Your task to perform on an android device: Search for Mexican restaurants on Maps Image 0: 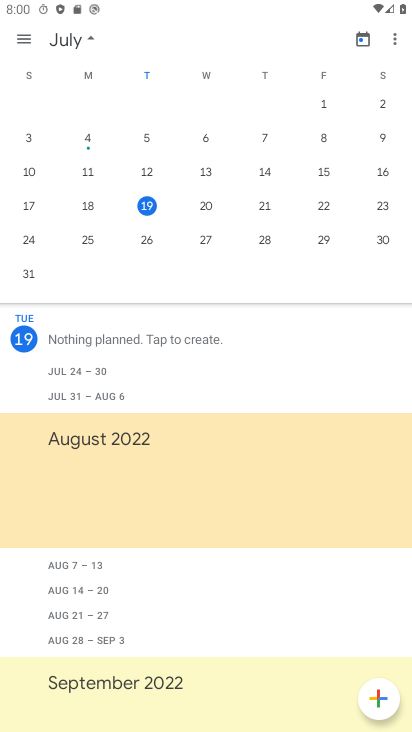
Step 0: press home button
Your task to perform on an android device: Search for Mexican restaurants on Maps Image 1: 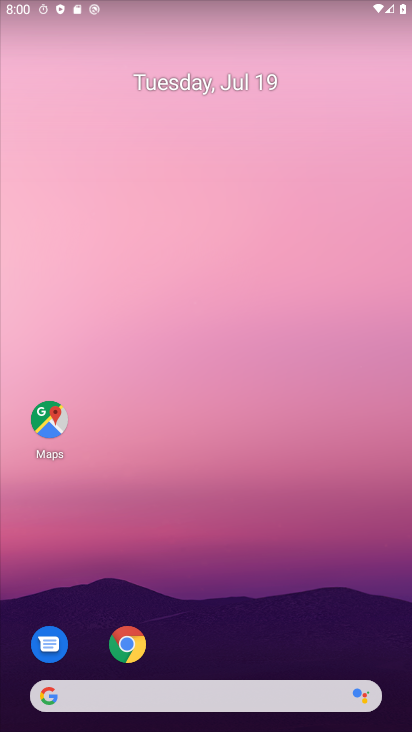
Step 1: click (54, 421)
Your task to perform on an android device: Search for Mexican restaurants on Maps Image 2: 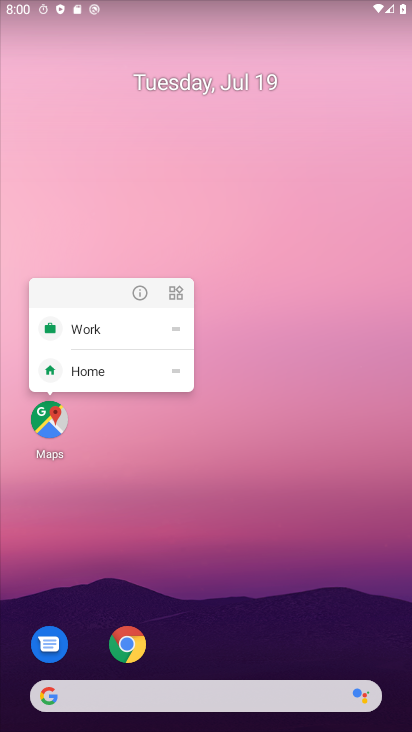
Step 2: click (39, 431)
Your task to perform on an android device: Search for Mexican restaurants on Maps Image 3: 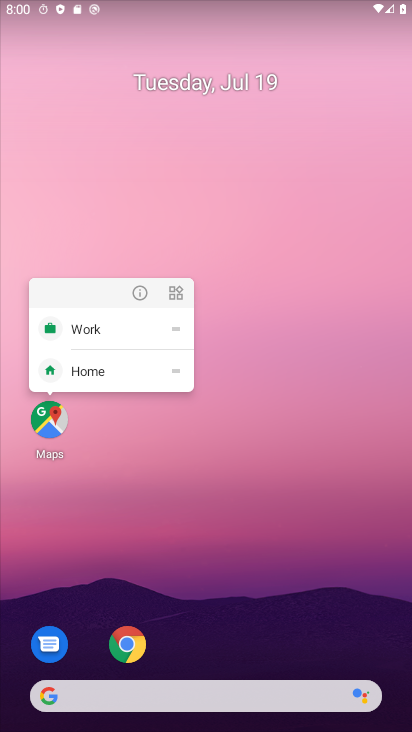
Step 3: click (42, 428)
Your task to perform on an android device: Search for Mexican restaurants on Maps Image 4: 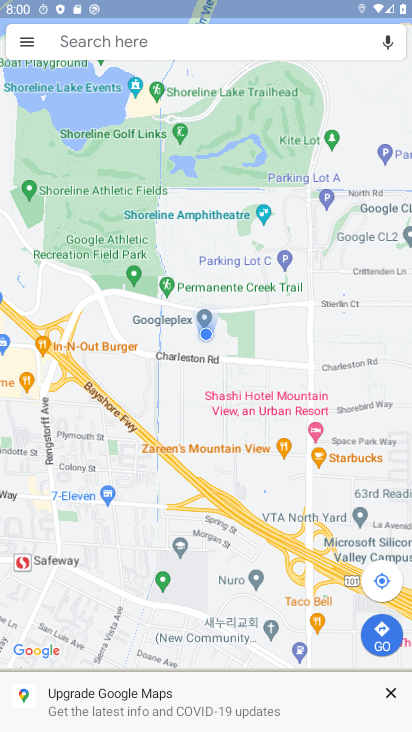
Step 4: click (63, 35)
Your task to perform on an android device: Search for Mexican restaurants on Maps Image 5: 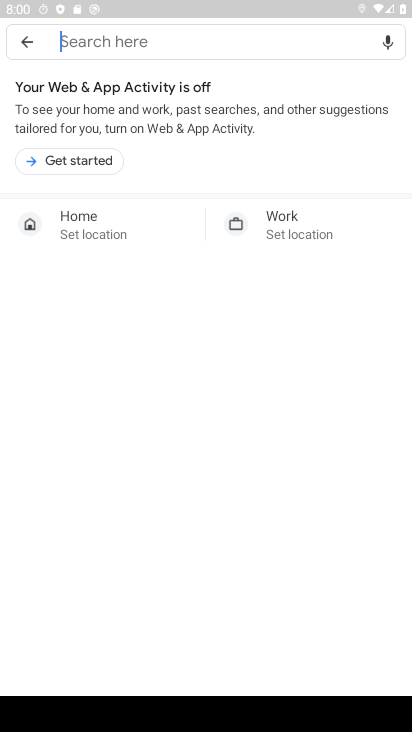
Step 5: type "Mexican restaurants"
Your task to perform on an android device: Search for Mexican restaurants on Maps Image 6: 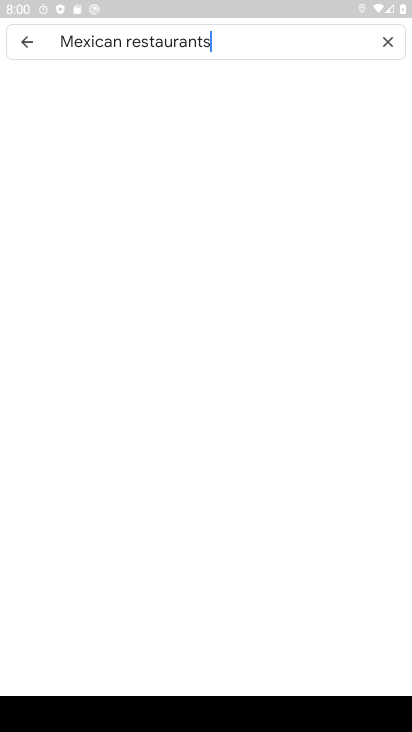
Step 6: type ""
Your task to perform on an android device: Search for Mexican restaurants on Maps Image 7: 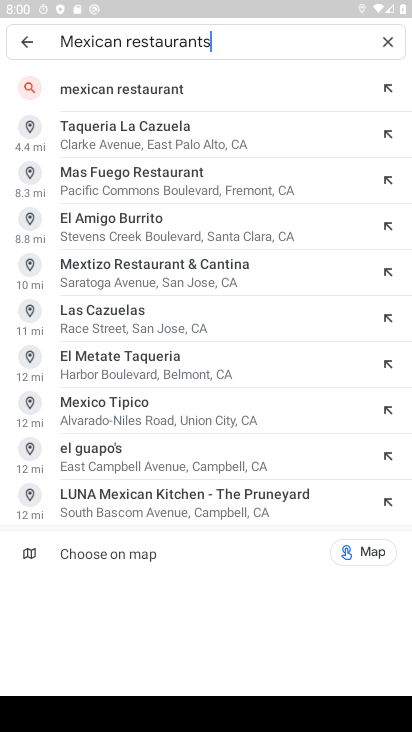
Step 7: click (153, 89)
Your task to perform on an android device: Search for Mexican restaurants on Maps Image 8: 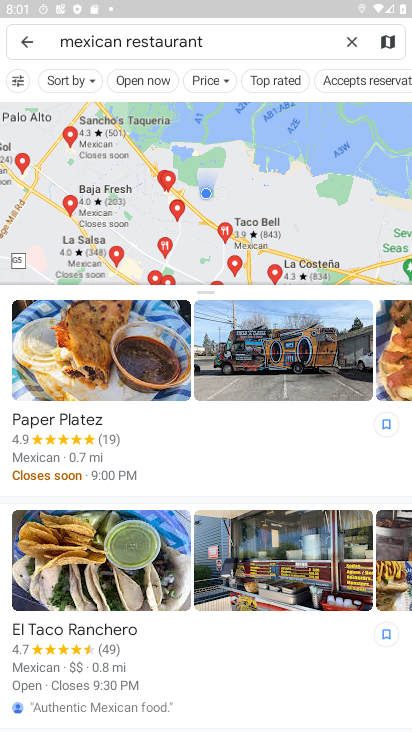
Step 8: task complete